Your task to perform on an android device: change alarm snooze length Image 0: 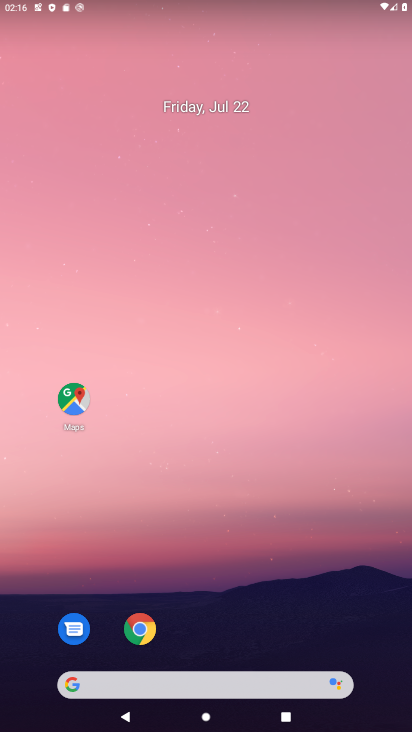
Step 0: drag from (49, 571) to (231, 114)
Your task to perform on an android device: change alarm snooze length Image 1: 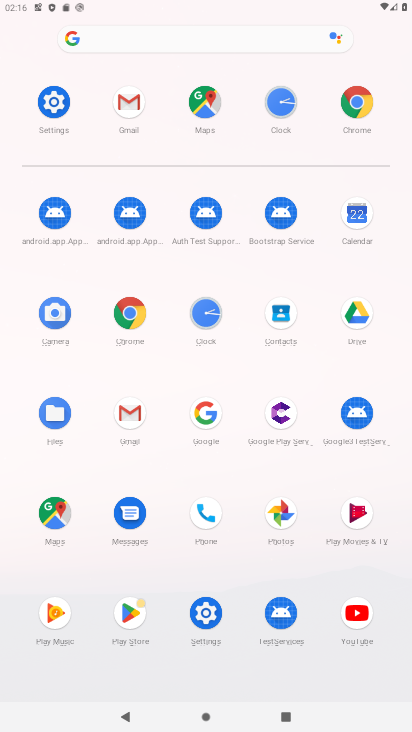
Step 1: click (196, 331)
Your task to perform on an android device: change alarm snooze length Image 2: 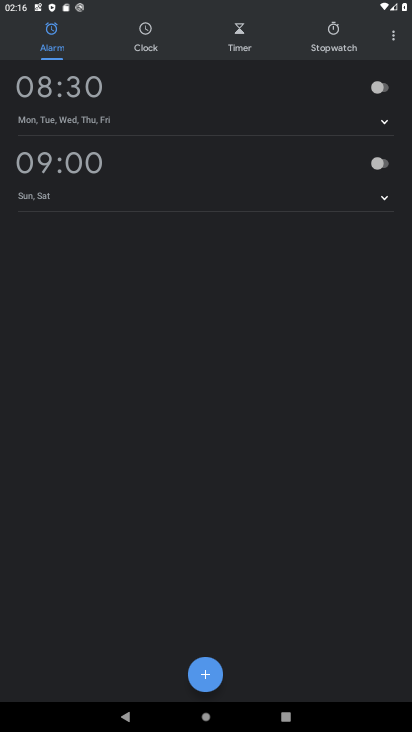
Step 2: click (387, 35)
Your task to perform on an android device: change alarm snooze length Image 3: 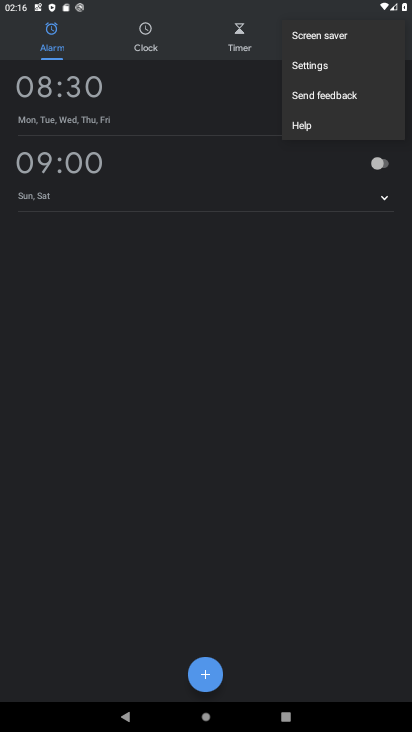
Step 3: click (312, 62)
Your task to perform on an android device: change alarm snooze length Image 4: 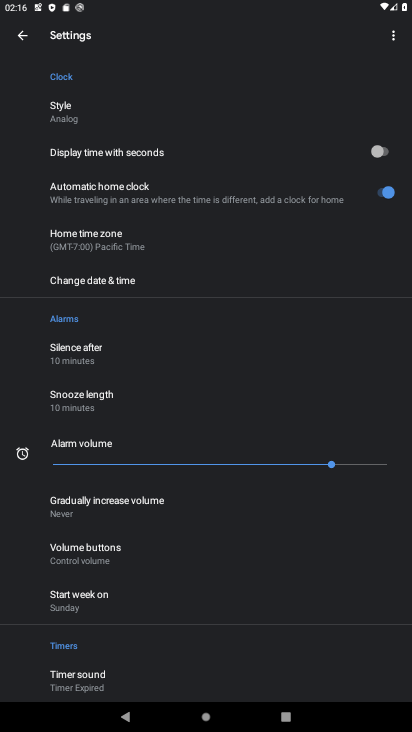
Step 4: click (73, 398)
Your task to perform on an android device: change alarm snooze length Image 5: 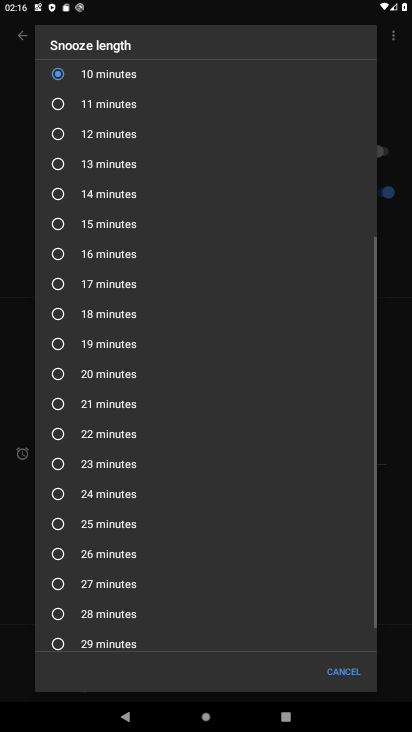
Step 5: click (109, 109)
Your task to perform on an android device: change alarm snooze length Image 6: 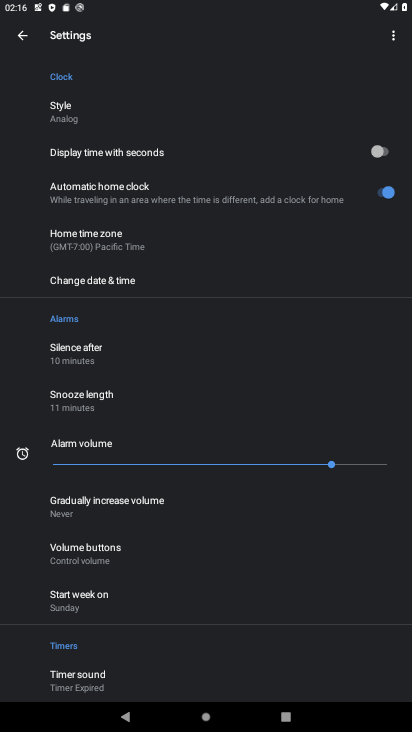
Step 6: task complete